Your task to perform on an android device: toggle translation in the chrome app Image 0: 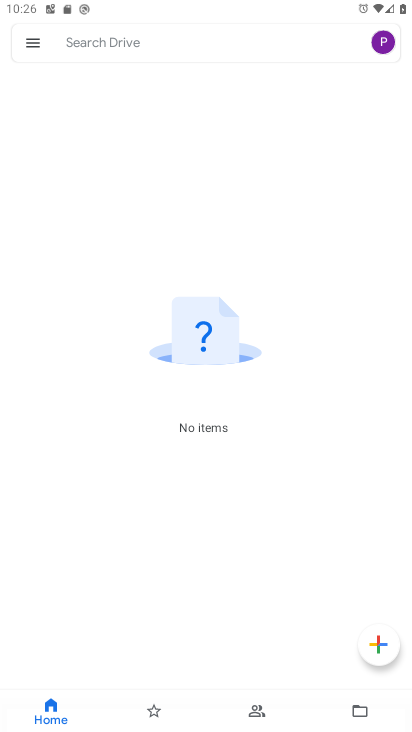
Step 0: press home button
Your task to perform on an android device: toggle translation in the chrome app Image 1: 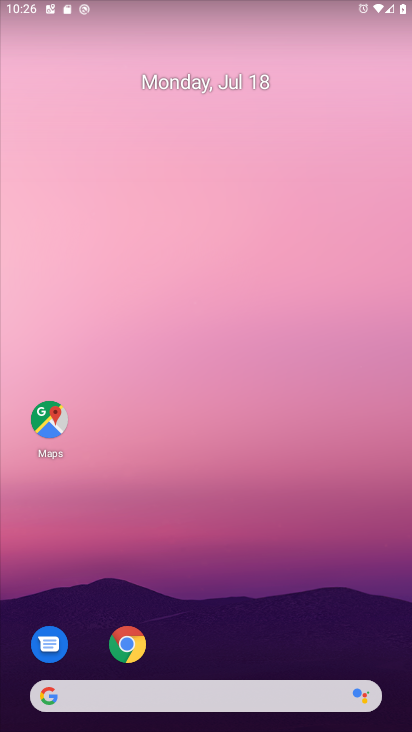
Step 1: click (124, 642)
Your task to perform on an android device: toggle translation in the chrome app Image 2: 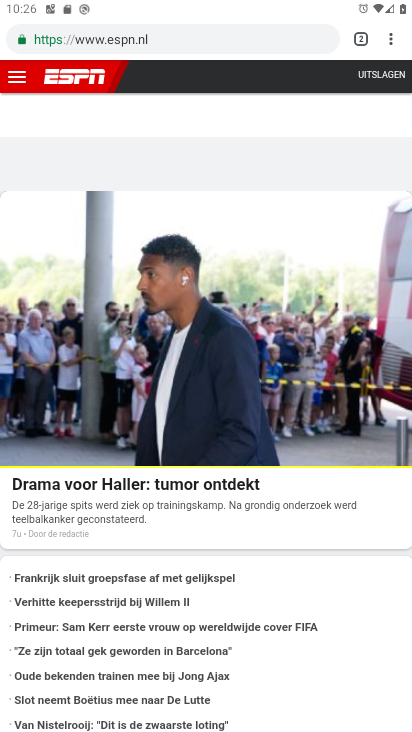
Step 2: click (388, 50)
Your task to perform on an android device: toggle translation in the chrome app Image 3: 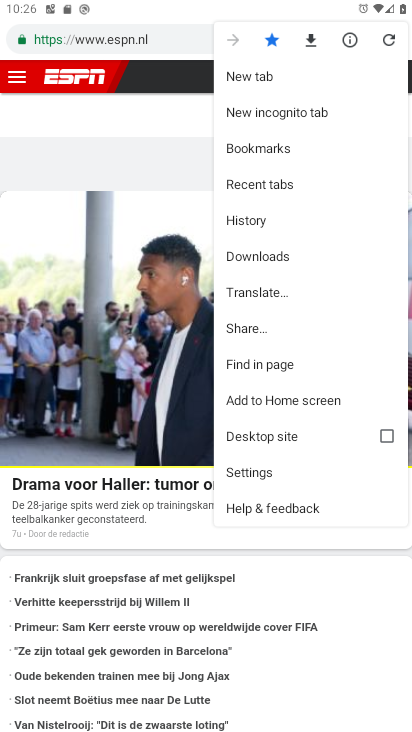
Step 3: click (243, 462)
Your task to perform on an android device: toggle translation in the chrome app Image 4: 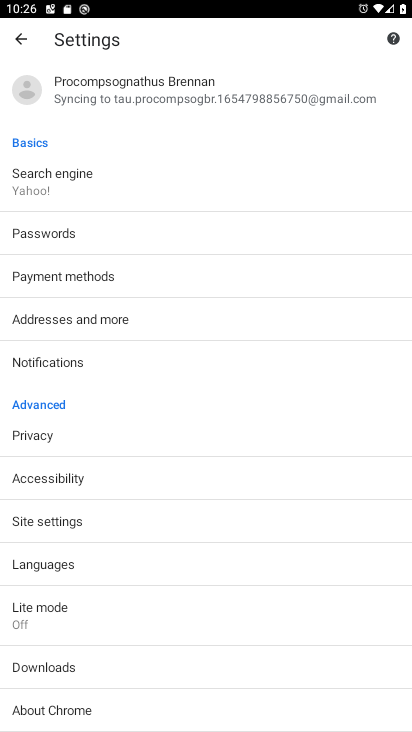
Step 4: click (170, 571)
Your task to perform on an android device: toggle translation in the chrome app Image 5: 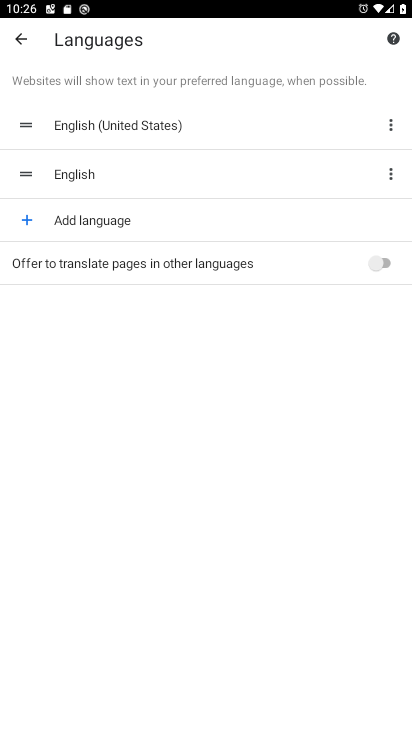
Step 5: click (360, 272)
Your task to perform on an android device: toggle translation in the chrome app Image 6: 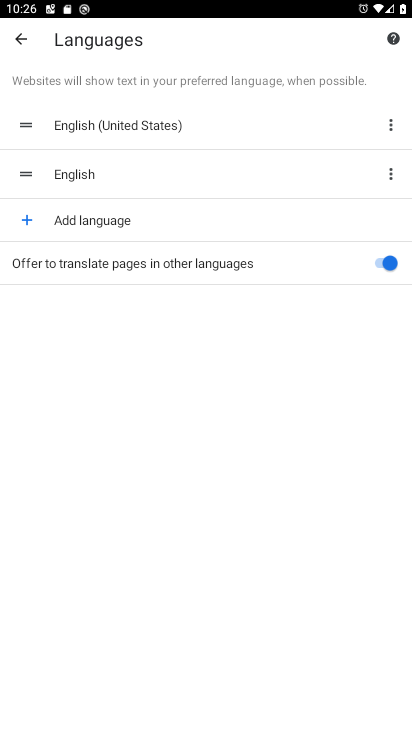
Step 6: task complete